Your task to perform on an android device: turn on improve location accuracy Image 0: 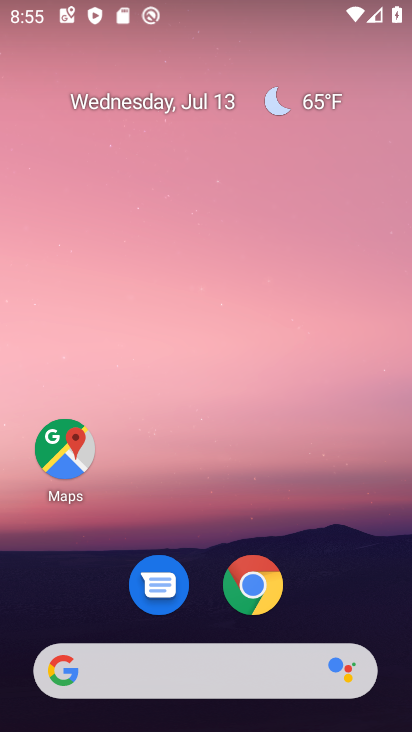
Step 0: drag from (264, 509) to (256, 30)
Your task to perform on an android device: turn on improve location accuracy Image 1: 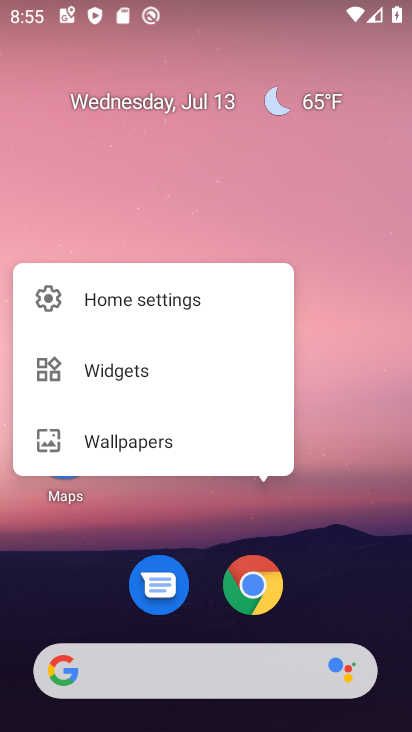
Step 1: click (385, 261)
Your task to perform on an android device: turn on improve location accuracy Image 2: 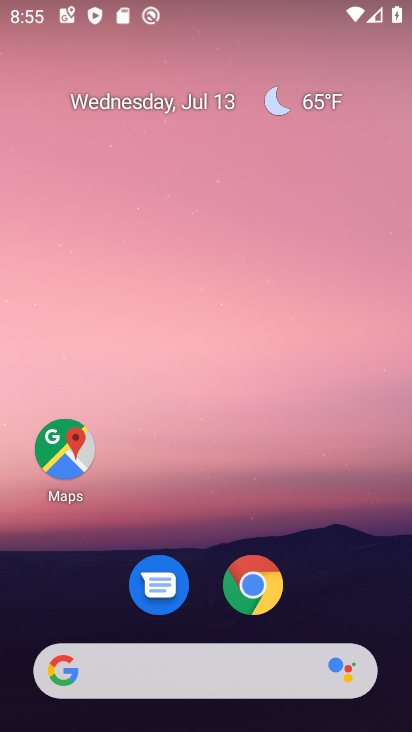
Step 2: drag from (215, 522) to (230, 9)
Your task to perform on an android device: turn on improve location accuracy Image 3: 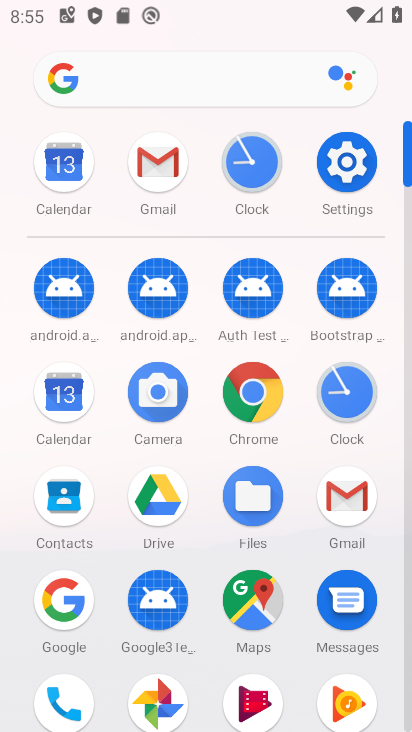
Step 3: click (344, 161)
Your task to perform on an android device: turn on improve location accuracy Image 4: 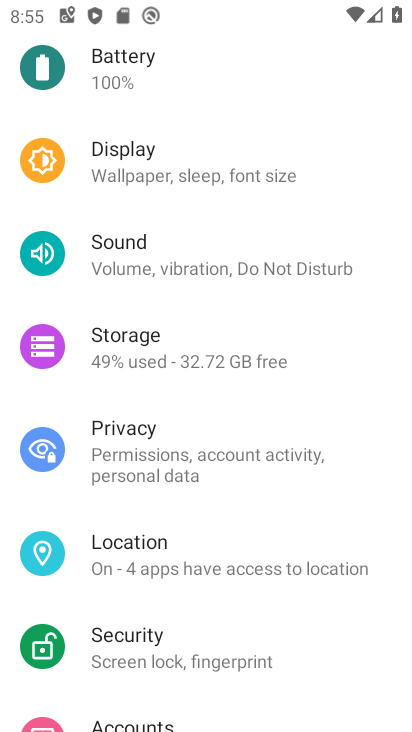
Step 4: click (209, 559)
Your task to perform on an android device: turn on improve location accuracy Image 5: 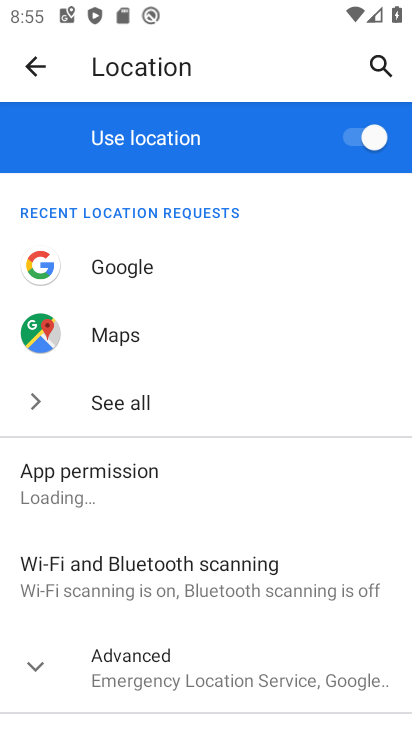
Step 5: drag from (225, 476) to (216, 226)
Your task to perform on an android device: turn on improve location accuracy Image 6: 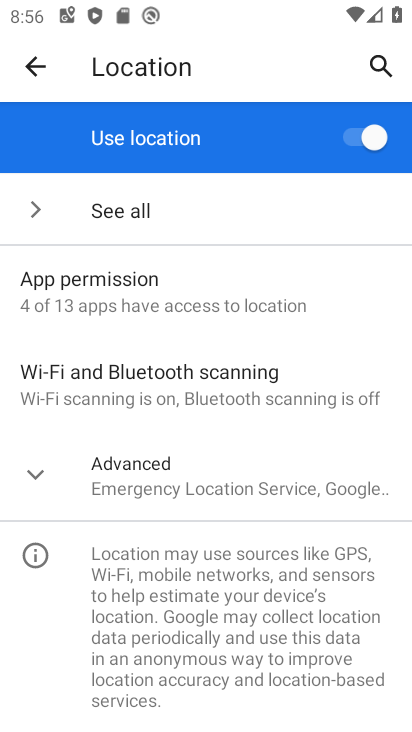
Step 6: click (32, 468)
Your task to perform on an android device: turn on improve location accuracy Image 7: 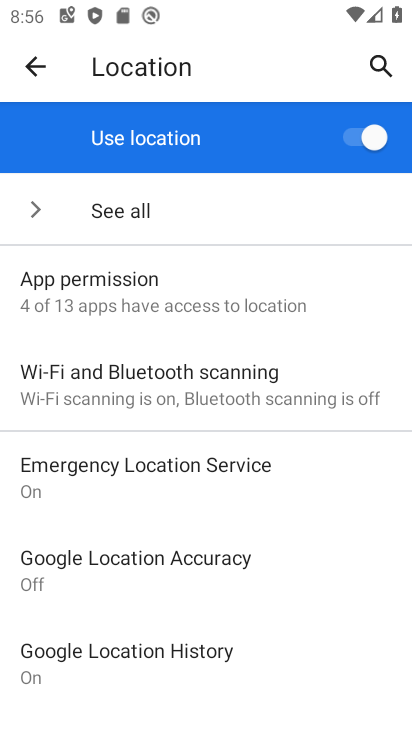
Step 7: click (103, 558)
Your task to perform on an android device: turn on improve location accuracy Image 8: 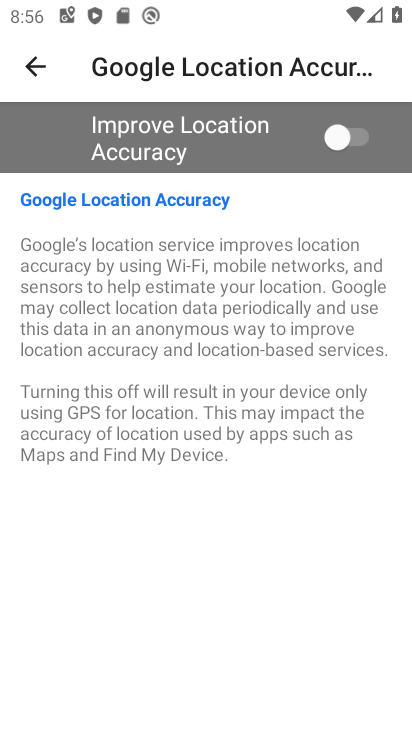
Step 8: click (350, 136)
Your task to perform on an android device: turn on improve location accuracy Image 9: 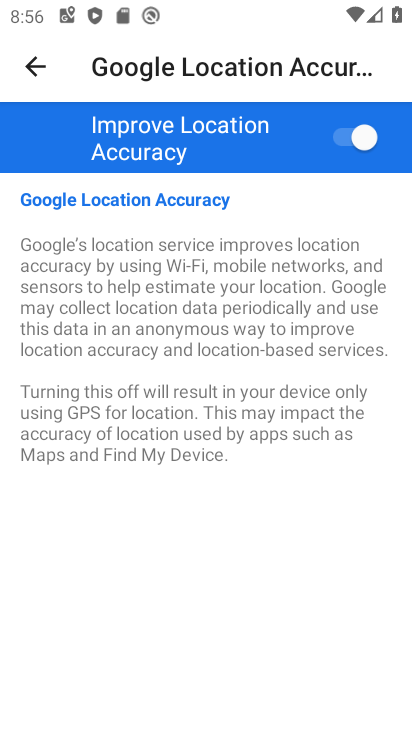
Step 9: task complete